Your task to perform on an android device: toggle notification dots Image 0: 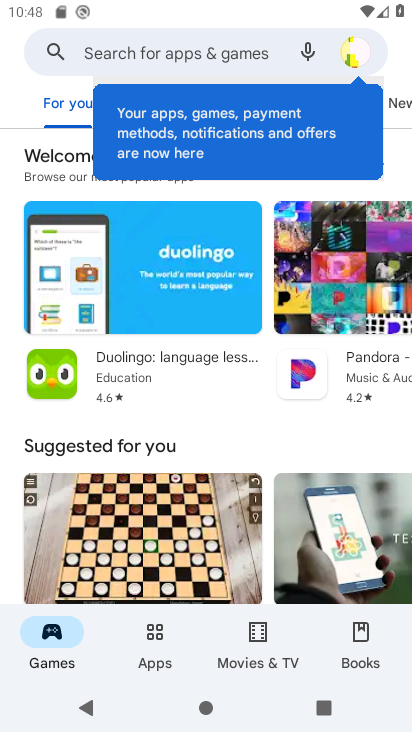
Step 0: press back button
Your task to perform on an android device: toggle notification dots Image 1: 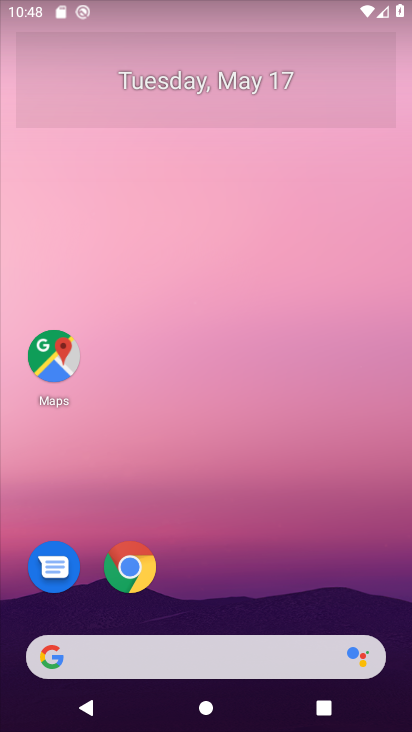
Step 1: drag from (238, 576) to (286, 58)
Your task to perform on an android device: toggle notification dots Image 2: 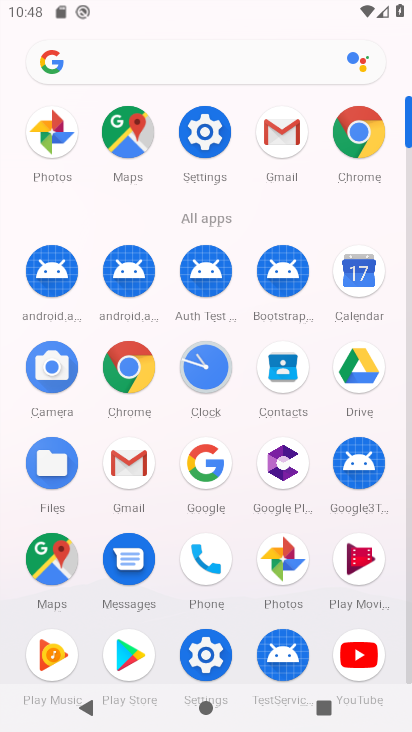
Step 2: click (208, 134)
Your task to perform on an android device: toggle notification dots Image 3: 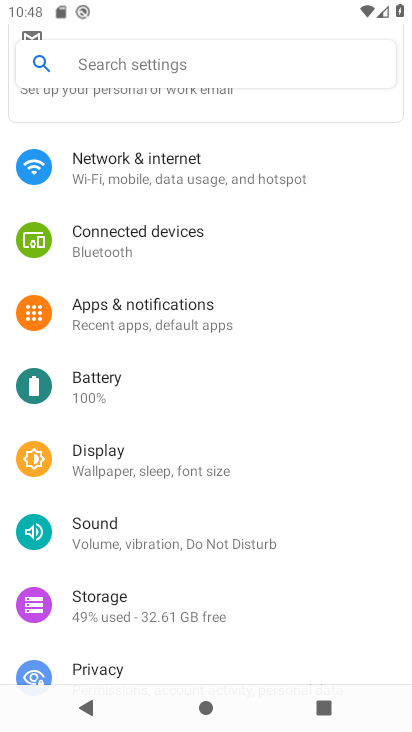
Step 3: click (184, 312)
Your task to perform on an android device: toggle notification dots Image 4: 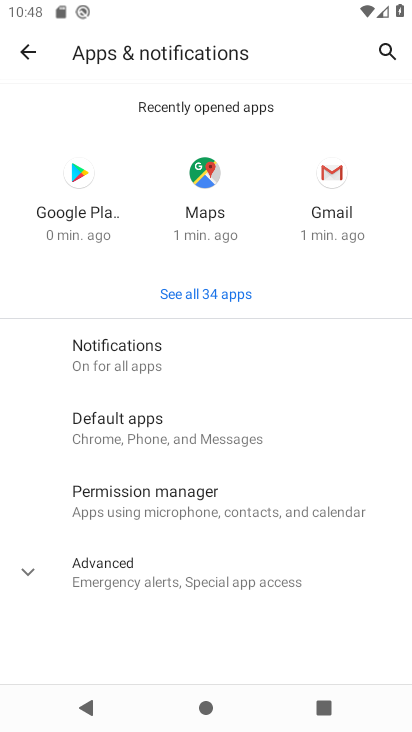
Step 4: click (174, 356)
Your task to perform on an android device: toggle notification dots Image 5: 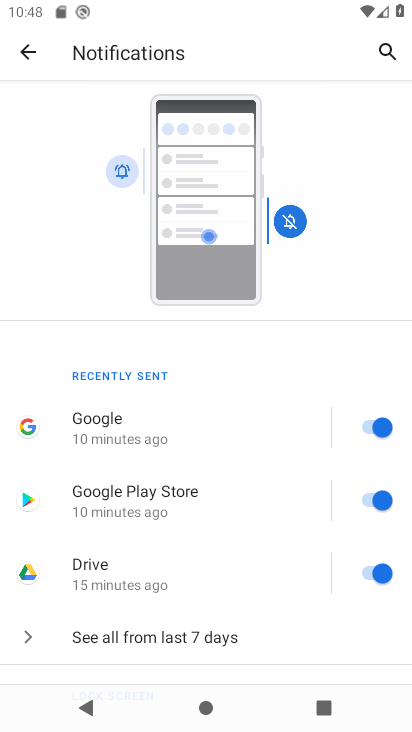
Step 5: drag from (180, 634) to (274, 88)
Your task to perform on an android device: toggle notification dots Image 6: 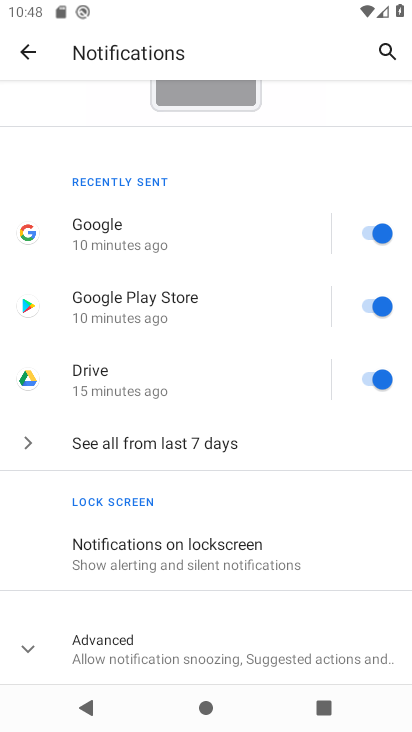
Step 6: drag from (202, 630) to (276, 112)
Your task to perform on an android device: toggle notification dots Image 7: 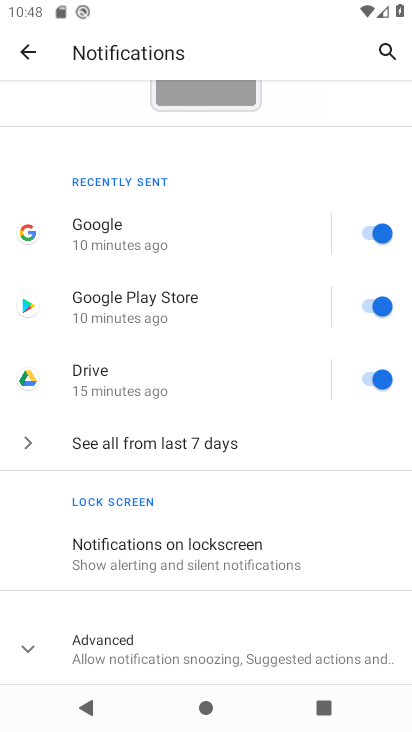
Step 7: click (222, 659)
Your task to perform on an android device: toggle notification dots Image 8: 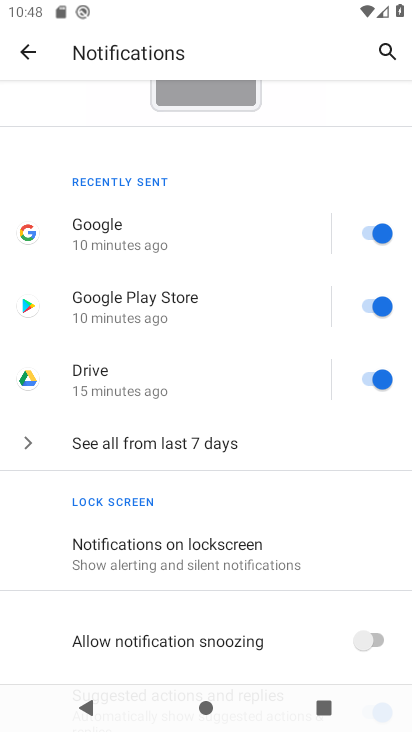
Step 8: drag from (191, 591) to (198, 174)
Your task to perform on an android device: toggle notification dots Image 9: 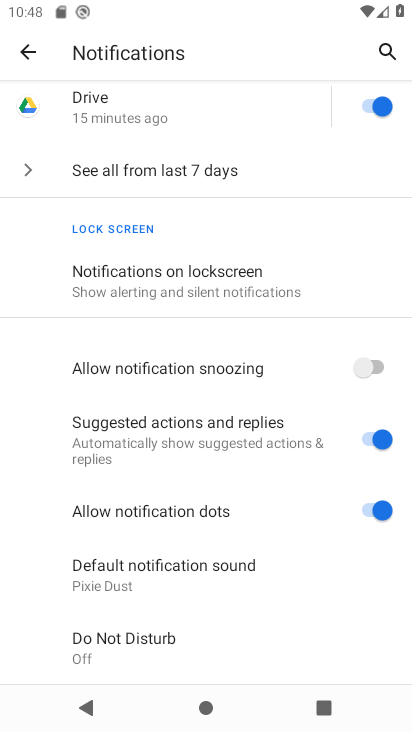
Step 9: click (376, 509)
Your task to perform on an android device: toggle notification dots Image 10: 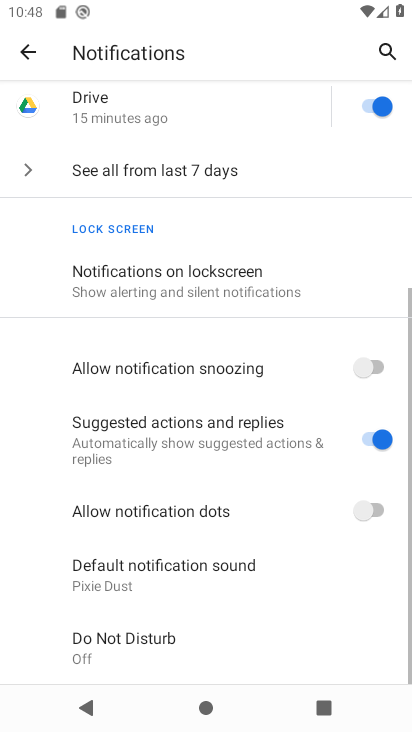
Step 10: task complete